Your task to perform on an android device: See recent photos Image 0: 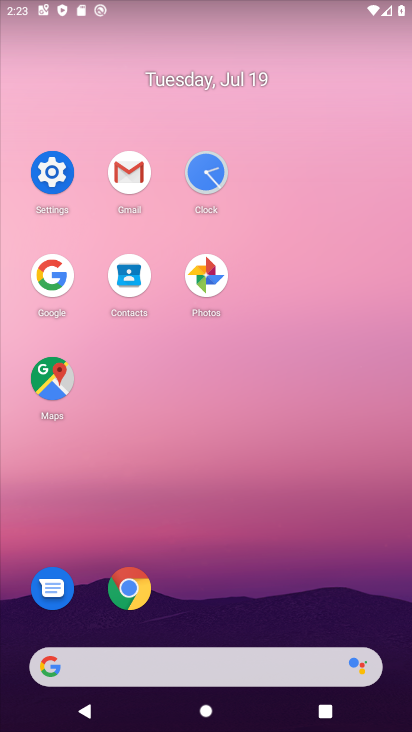
Step 0: click (207, 267)
Your task to perform on an android device: See recent photos Image 1: 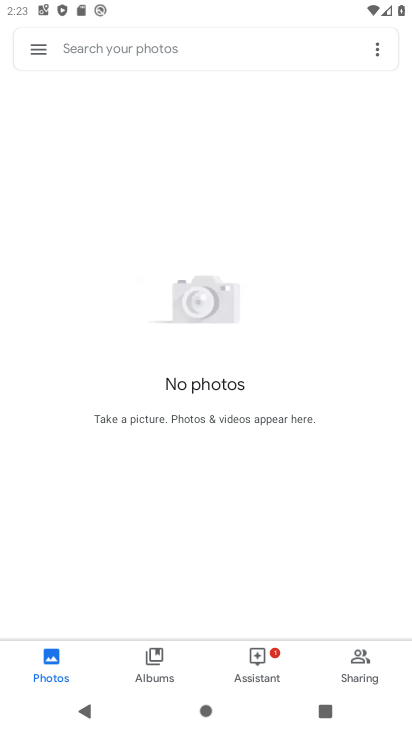
Step 1: task complete